Your task to perform on an android device: turn smart compose on in the gmail app Image 0: 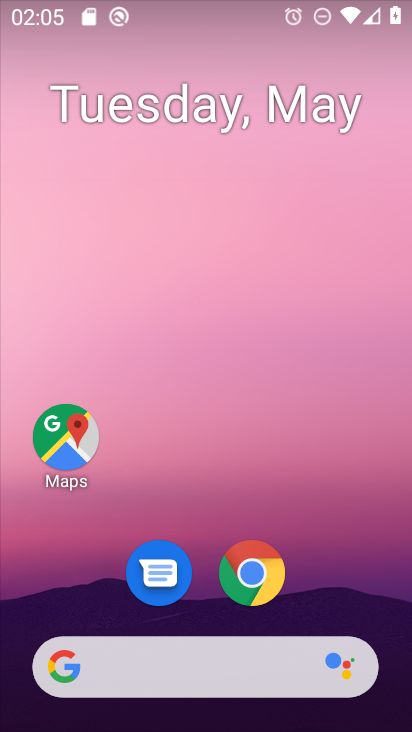
Step 0: drag from (217, 712) to (256, 114)
Your task to perform on an android device: turn smart compose on in the gmail app Image 1: 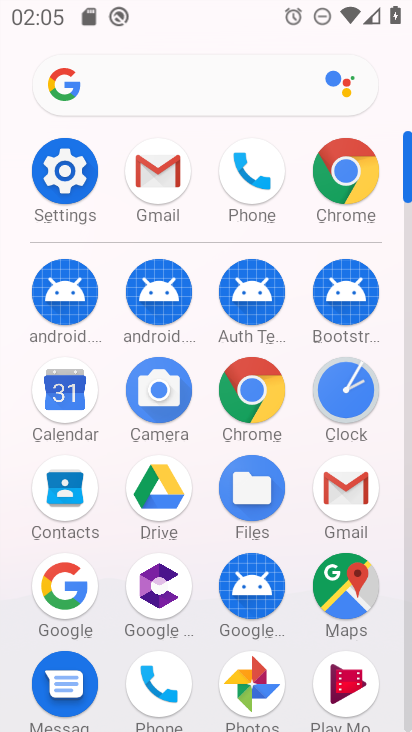
Step 1: click (172, 158)
Your task to perform on an android device: turn smart compose on in the gmail app Image 2: 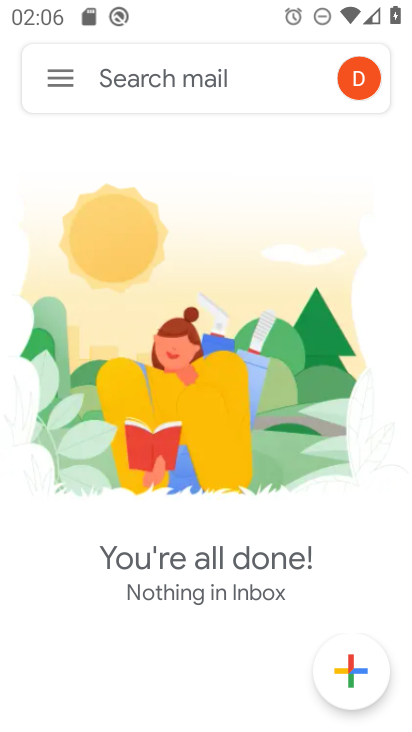
Step 2: click (47, 91)
Your task to perform on an android device: turn smart compose on in the gmail app Image 3: 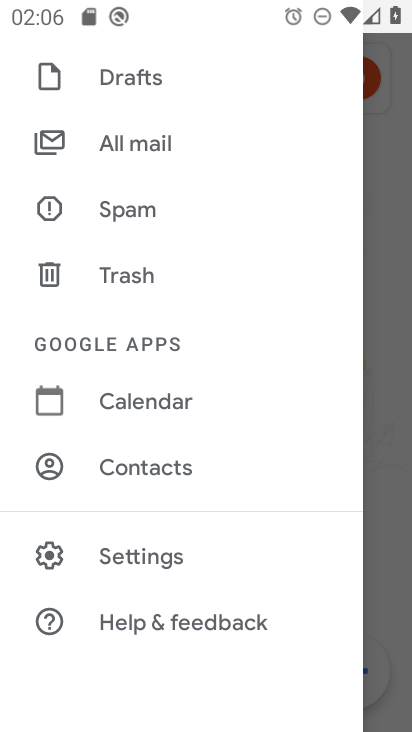
Step 3: click (166, 571)
Your task to perform on an android device: turn smart compose on in the gmail app Image 4: 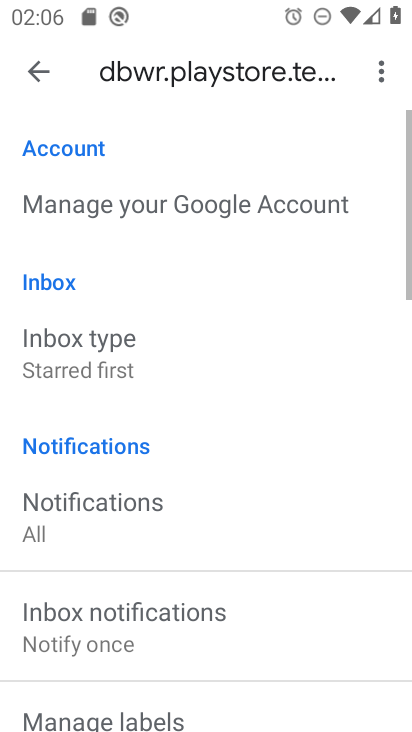
Step 4: task complete